Your task to perform on an android device: see creations saved in the google photos Image 0: 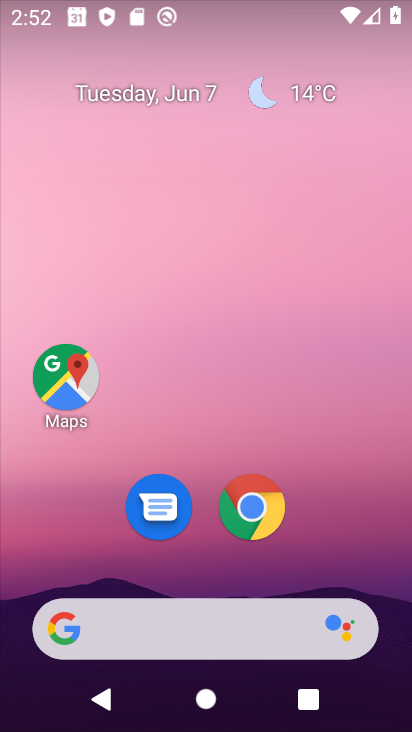
Step 0: drag from (332, 547) to (340, 113)
Your task to perform on an android device: see creations saved in the google photos Image 1: 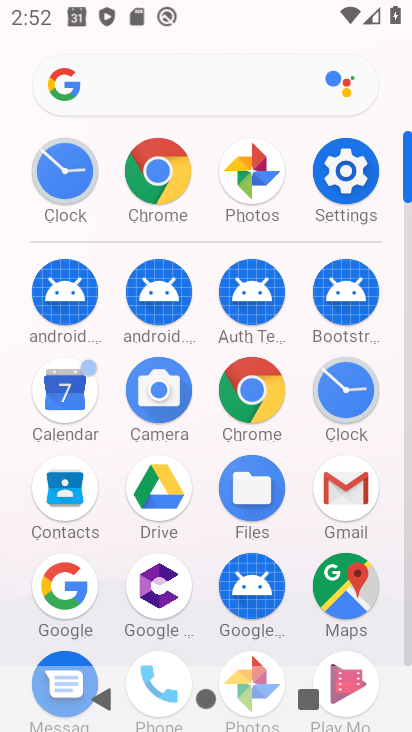
Step 1: drag from (292, 619) to (312, 326)
Your task to perform on an android device: see creations saved in the google photos Image 2: 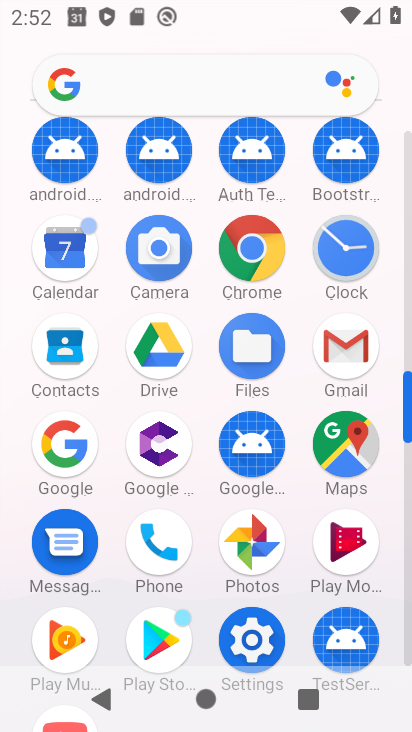
Step 2: click (248, 546)
Your task to perform on an android device: see creations saved in the google photos Image 3: 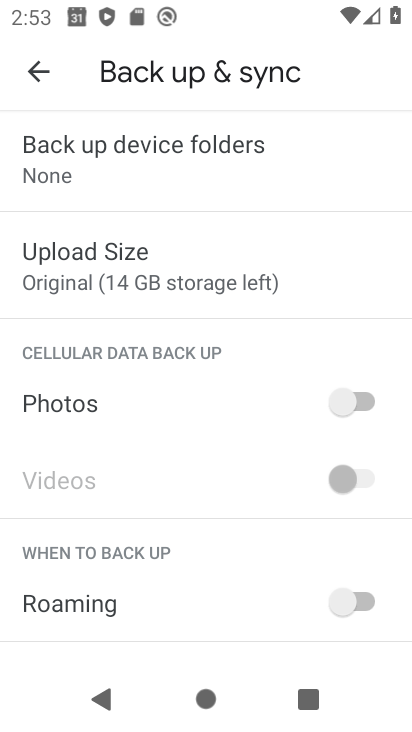
Step 3: press back button
Your task to perform on an android device: see creations saved in the google photos Image 4: 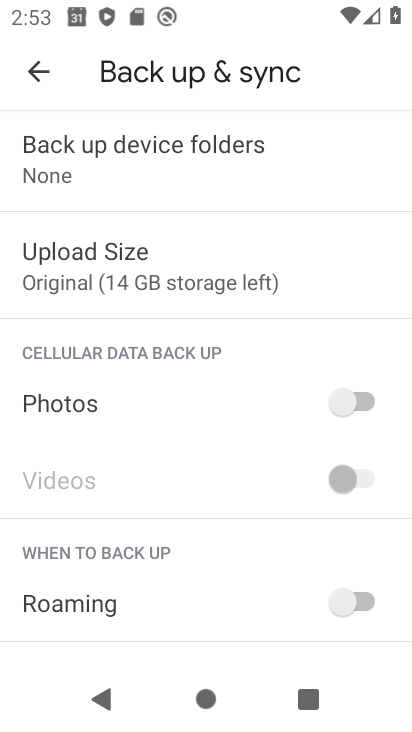
Step 4: press back button
Your task to perform on an android device: see creations saved in the google photos Image 5: 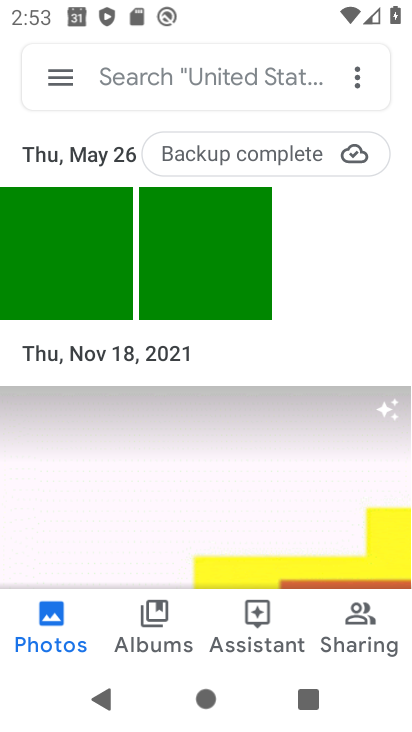
Step 5: click (248, 627)
Your task to perform on an android device: see creations saved in the google photos Image 6: 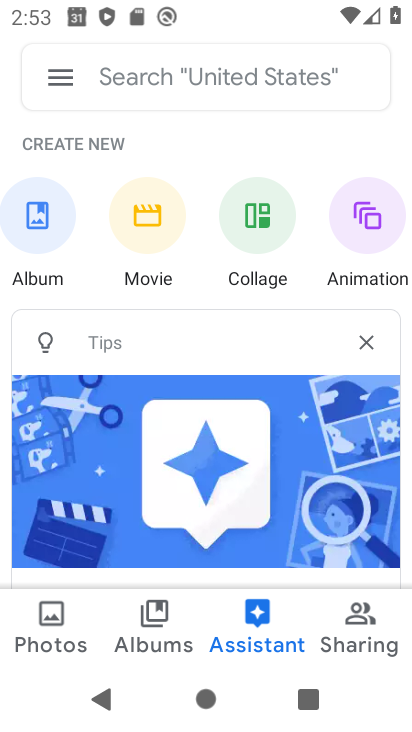
Step 6: task complete